Your task to perform on an android device: Open Youtube and go to the subscriptions tab Image 0: 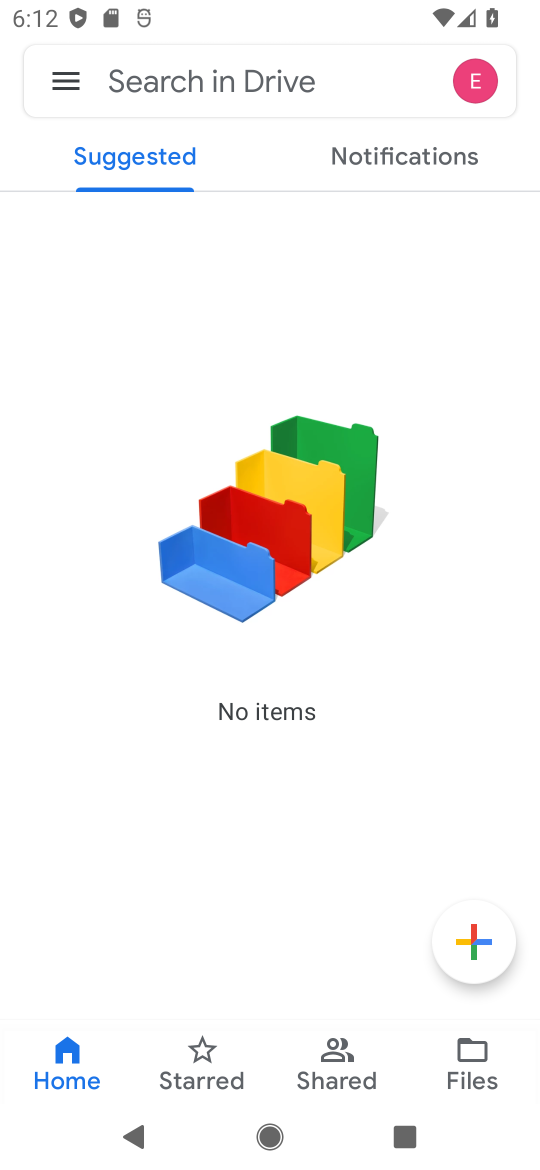
Step 0: press home button
Your task to perform on an android device: Open Youtube and go to the subscriptions tab Image 1: 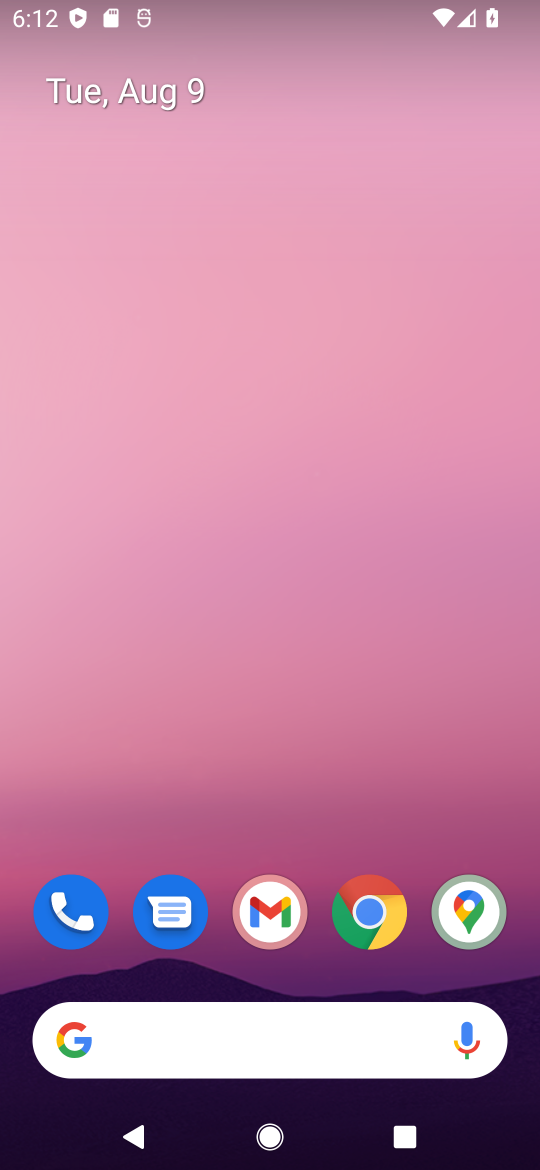
Step 1: drag from (407, 800) to (535, 57)
Your task to perform on an android device: Open Youtube and go to the subscriptions tab Image 2: 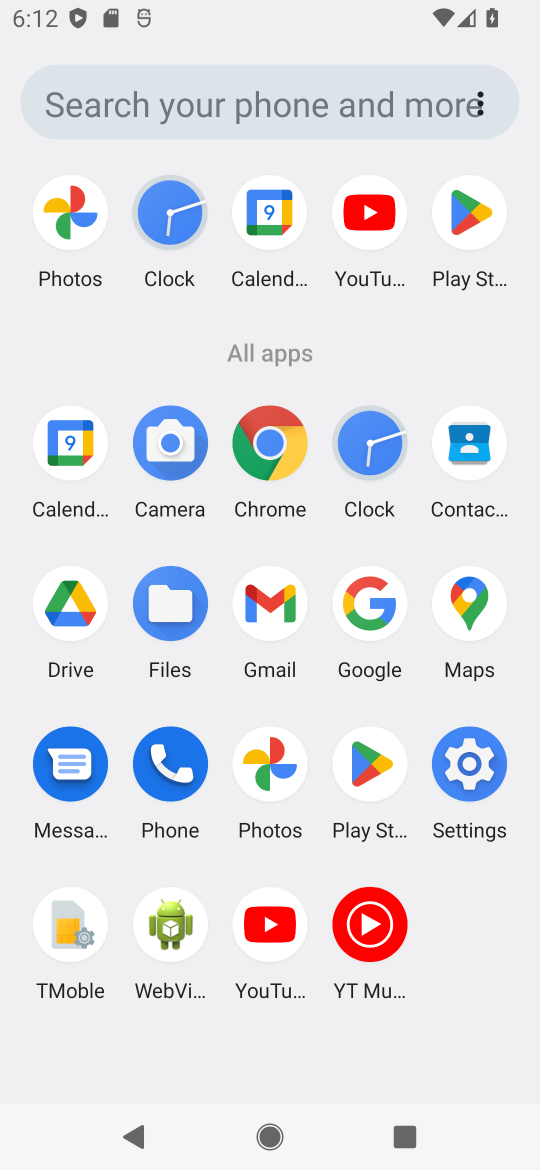
Step 2: drag from (264, 898) to (307, 823)
Your task to perform on an android device: Open Youtube and go to the subscriptions tab Image 3: 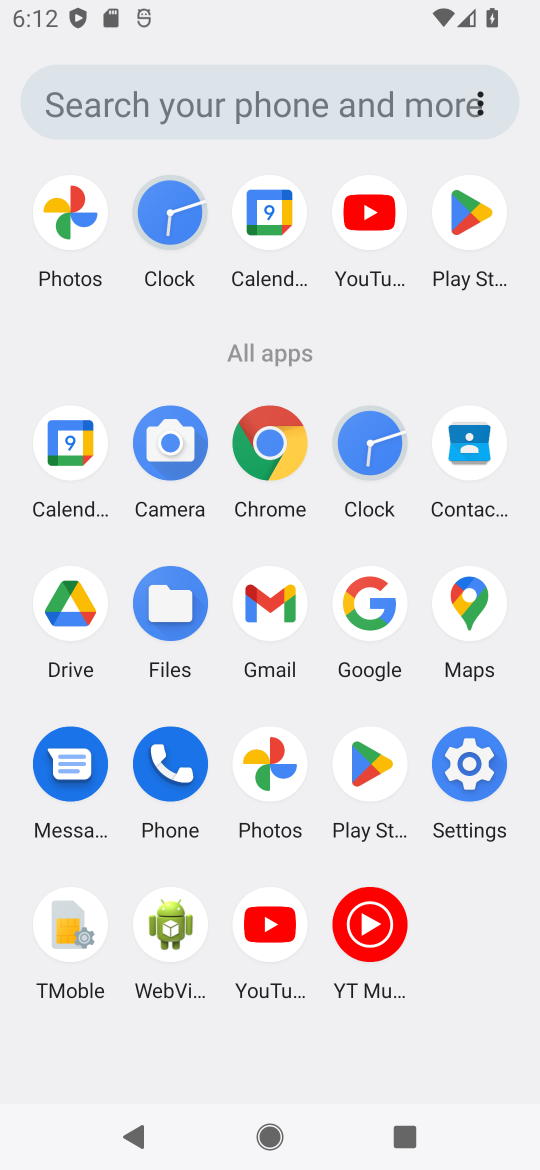
Step 3: click (284, 926)
Your task to perform on an android device: Open Youtube and go to the subscriptions tab Image 4: 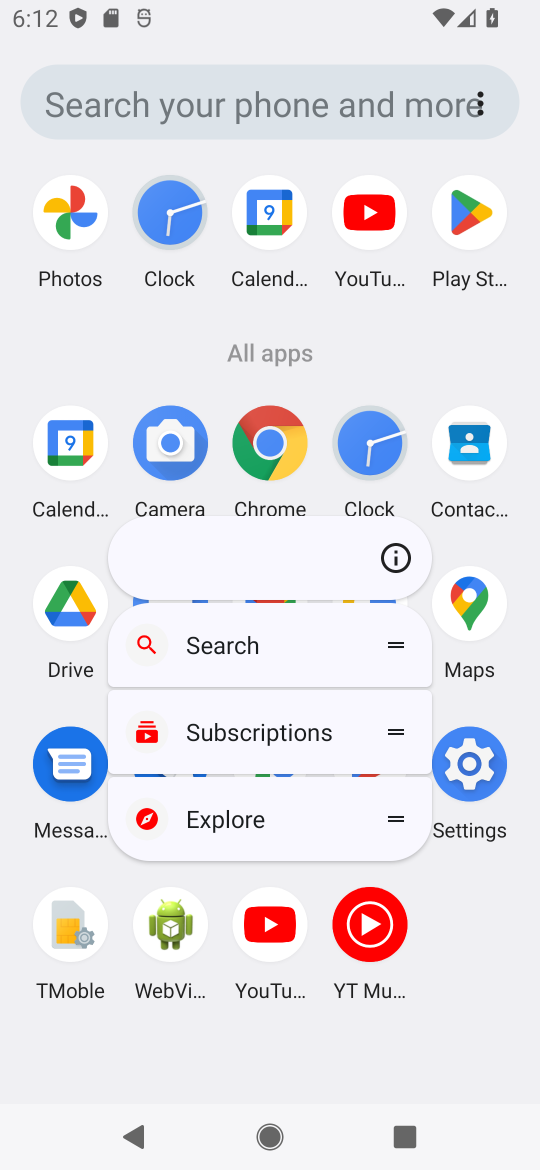
Step 4: click (290, 925)
Your task to perform on an android device: Open Youtube and go to the subscriptions tab Image 5: 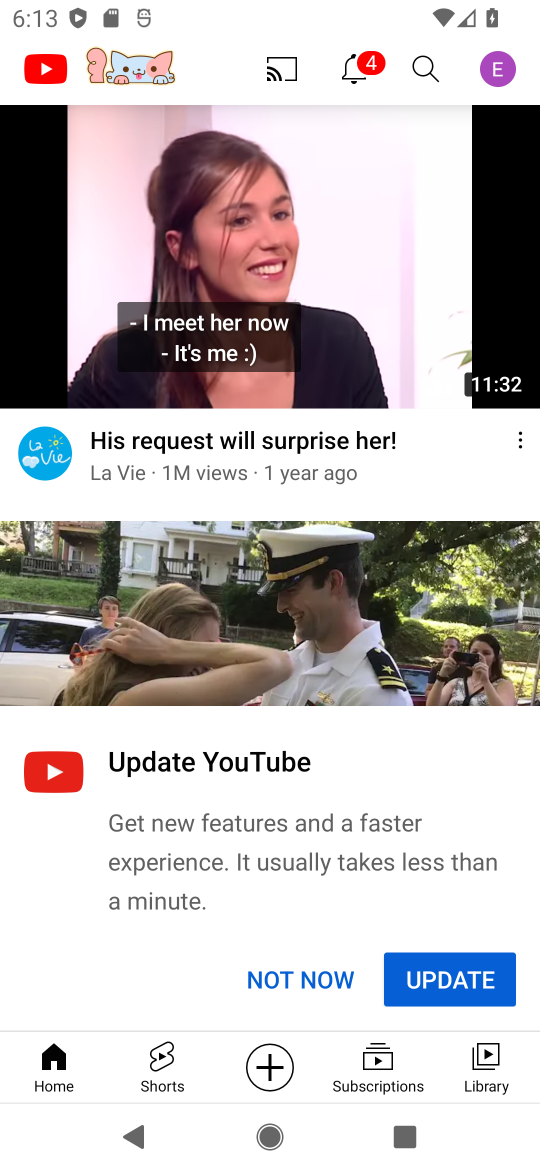
Step 5: click (386, 1074)
Your task to perform on an android device: Open Youtube and go to the subscriptions tab Image 6: 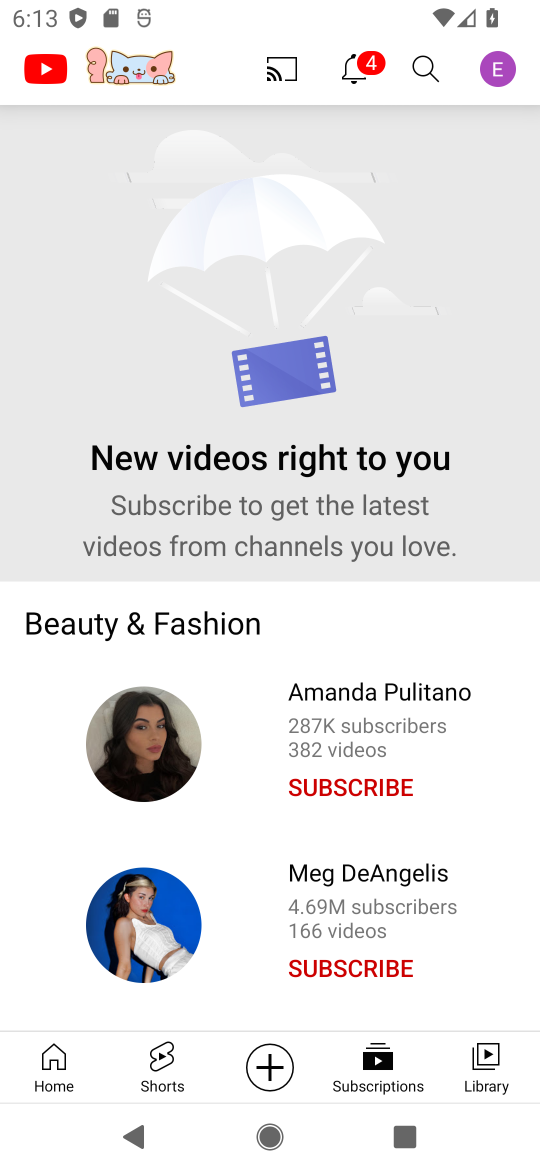
Step 6: task complete